Your task to perform on an android device: Open Chrome and go to the settings page Image 0: 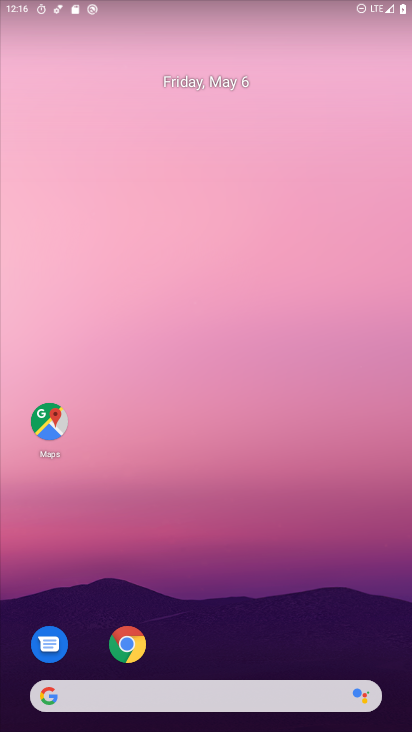
Step 0: press home button
Your task to perform on an android device: Open Chrome and go to the settings page Image 1: 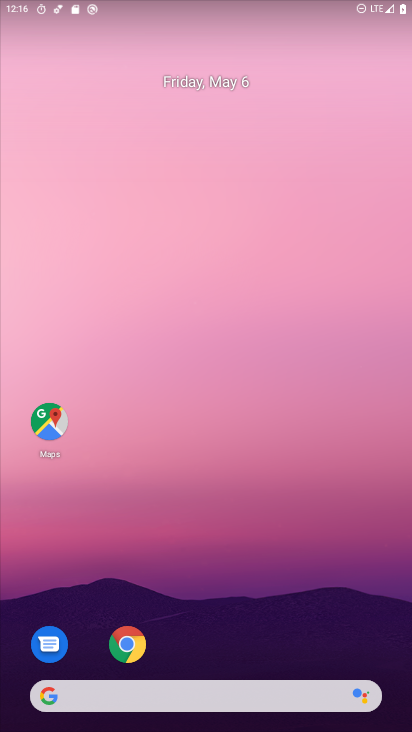
Step 1: drag from (347, 579) to (298, 230)
Your task to perform on an android device: Open Chrome and go to the settings page Image 2: 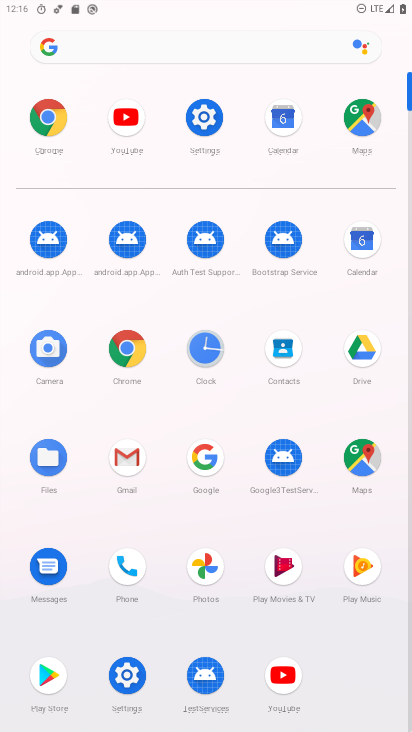
Step 2: click (137, 343)
Your task to perform on an android device: Open Chrome and go to the settings page Image 3: 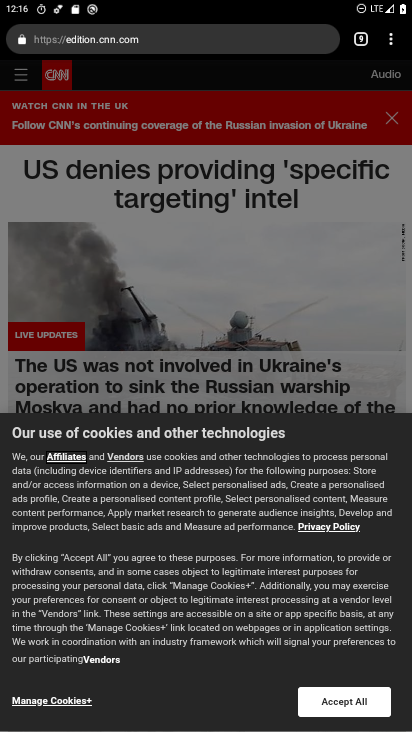
Step 3: task complete